Your task to perform on an android device: See recent photos Image 0: 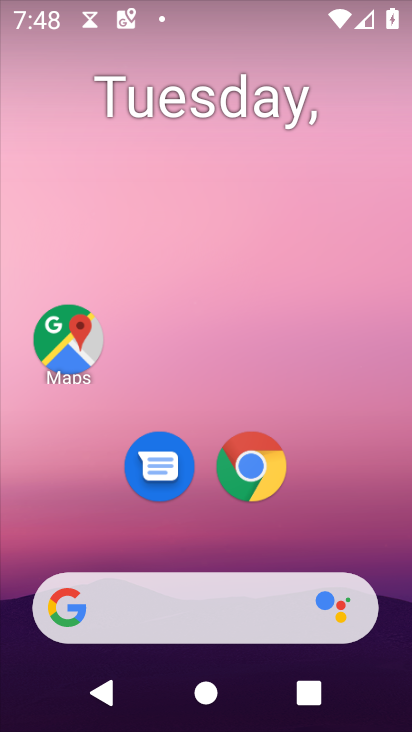
Step 0: press home button
Your task to perform on an android device: See recent photos Image 1: 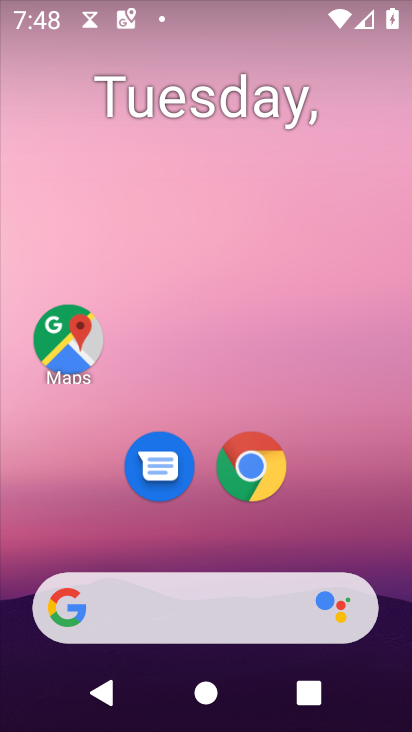
Step 1: press home button
Your task to perform on an android device: See recent photos Image 2: 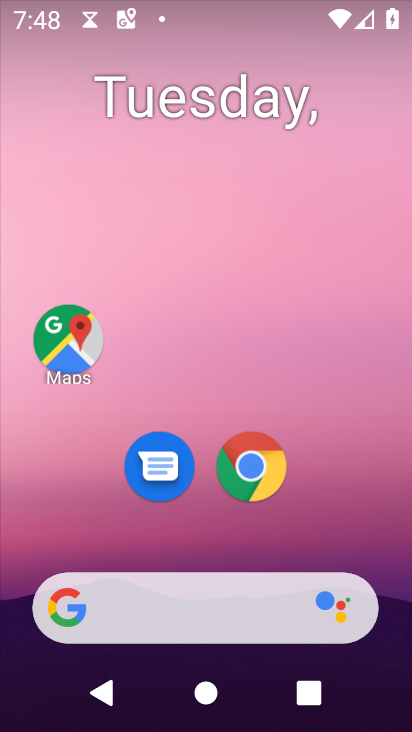
Step 2: drag from (212, 507) to (194, 30)
Your task to perform on an android device: See recent photos Image 3: 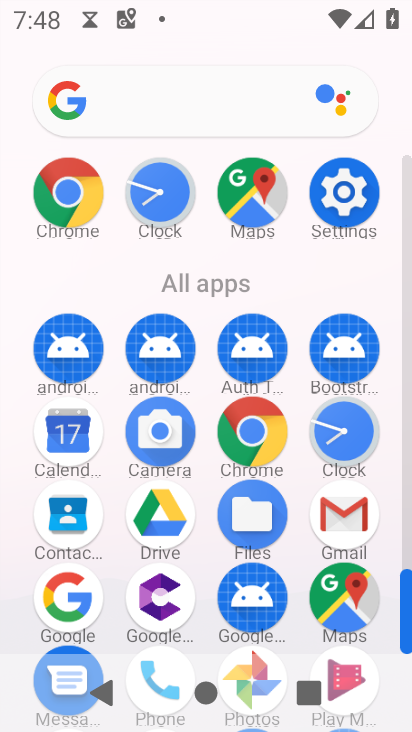
Step 3: drag from (272, 581) to (282, 231)
Your task to perform on an android device: See recent photos Image 4: 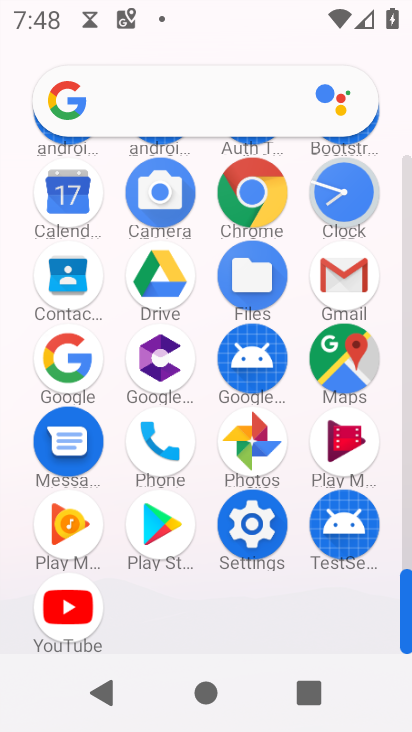
Step 4: click (251, 433)
Your task to perform on an android device: See recent photos Image 5: 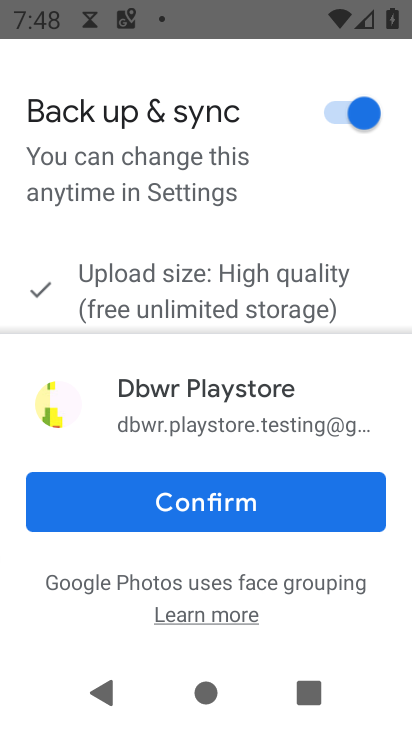
Step 5: click (192, 505)
Your task to perform on an android device: See recent photos Image 6: 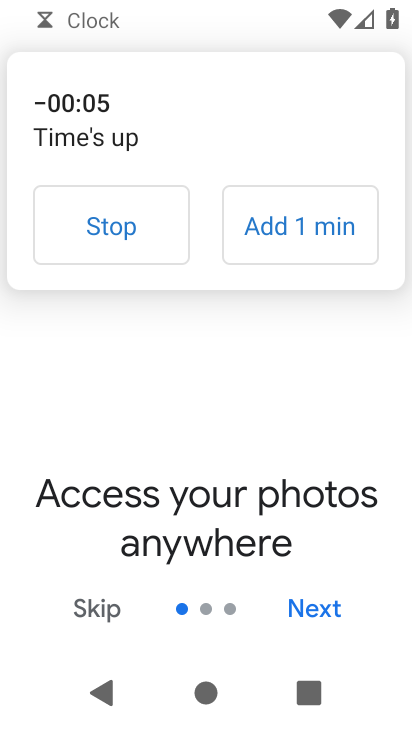
Step 6: click (72, 221)
Your task to perform on an android device: See recent photos Image 7: 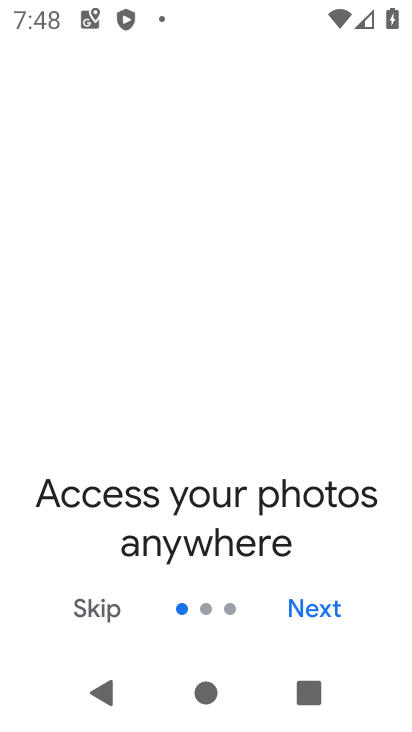
Step 7: click (312, 613)
Your task to perform on an android device: See recent photos Image 8: 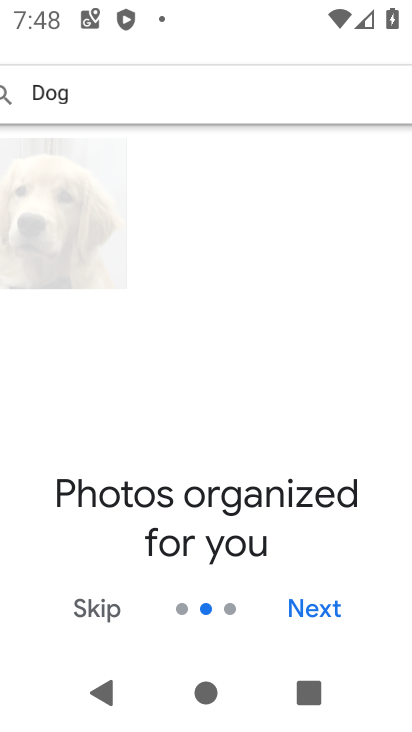
Step 8: click (312, 613)
Your task to perform on an android device: See recent photos Image 9: 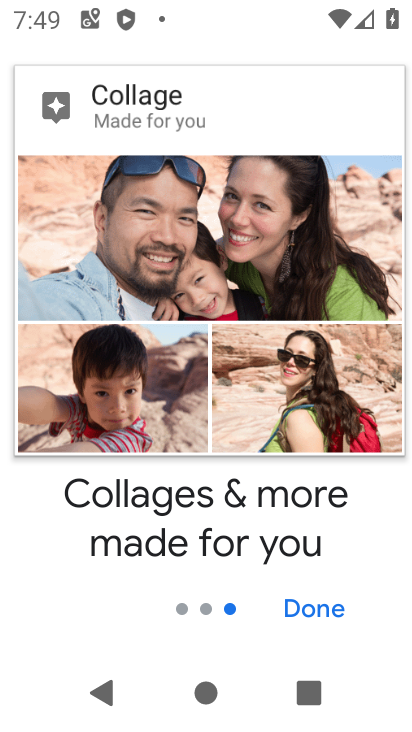
Step 9: click (316, 607)
Your task to perform on an android device: See recent photos Image 10: 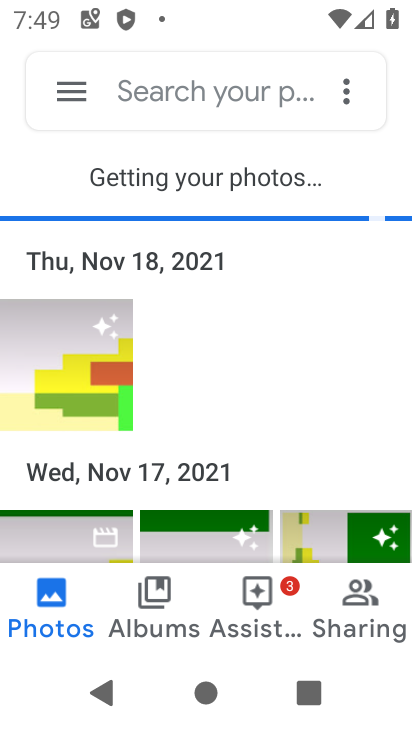
Step 10: task complete